Your task to perform on an android device: toggle pop-ups in chrome Image 0: 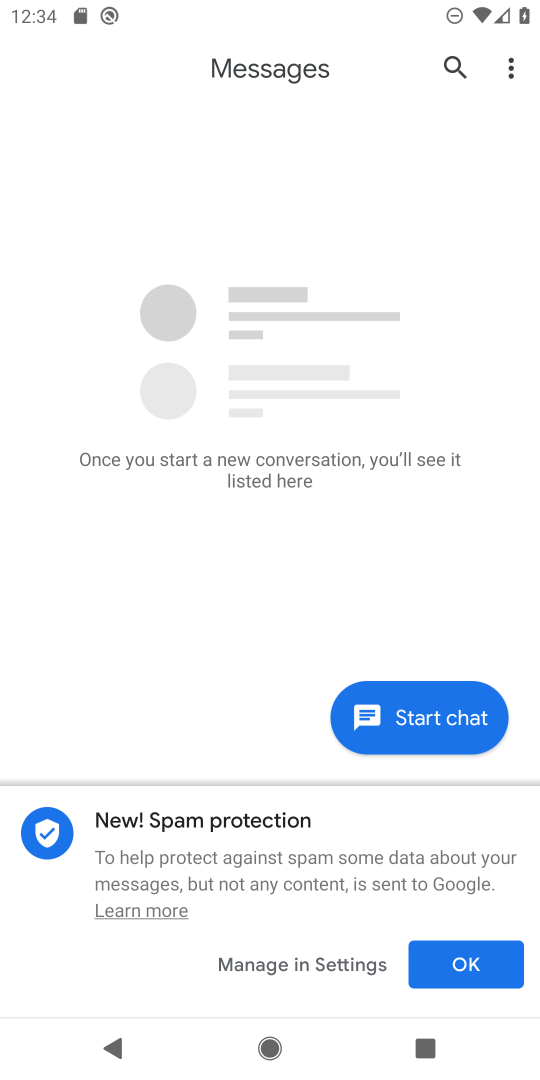
Step 0: press back button
Your task to perform on an android device: toggle pop-ups in chrome Image 1: 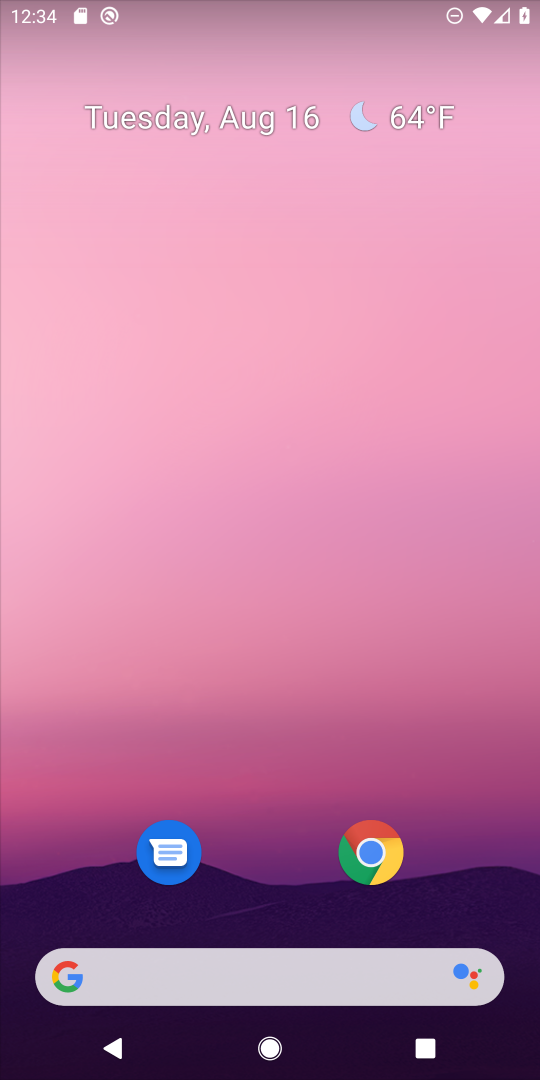
Step 1: click (374, 866)
Your task to perform on an android device: toggle pop-ups in chrome Image 2: 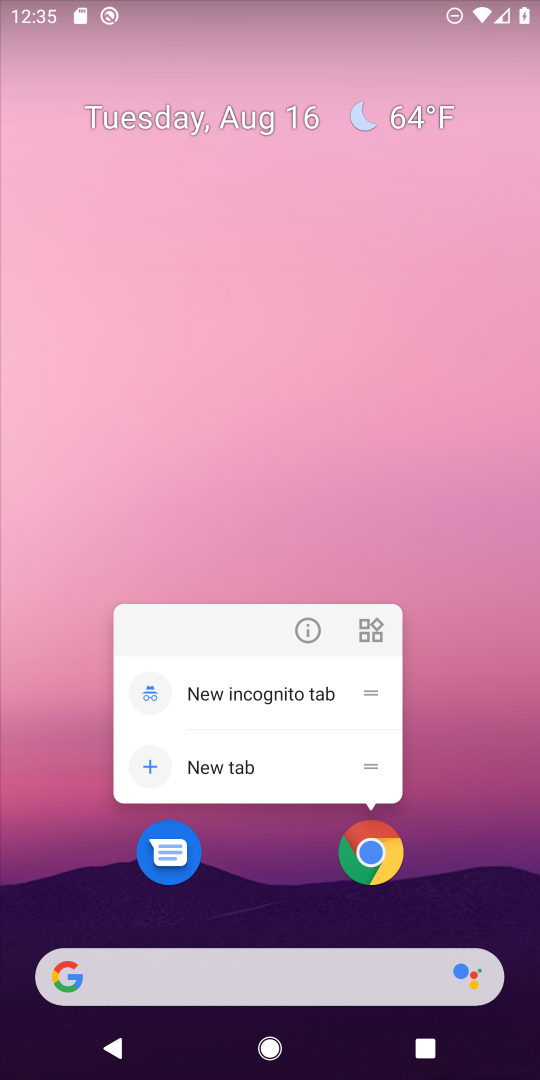
Step 2: click (365, 851)
Your task to perform on an android device: toggle pop-ups in chrome Image 3: 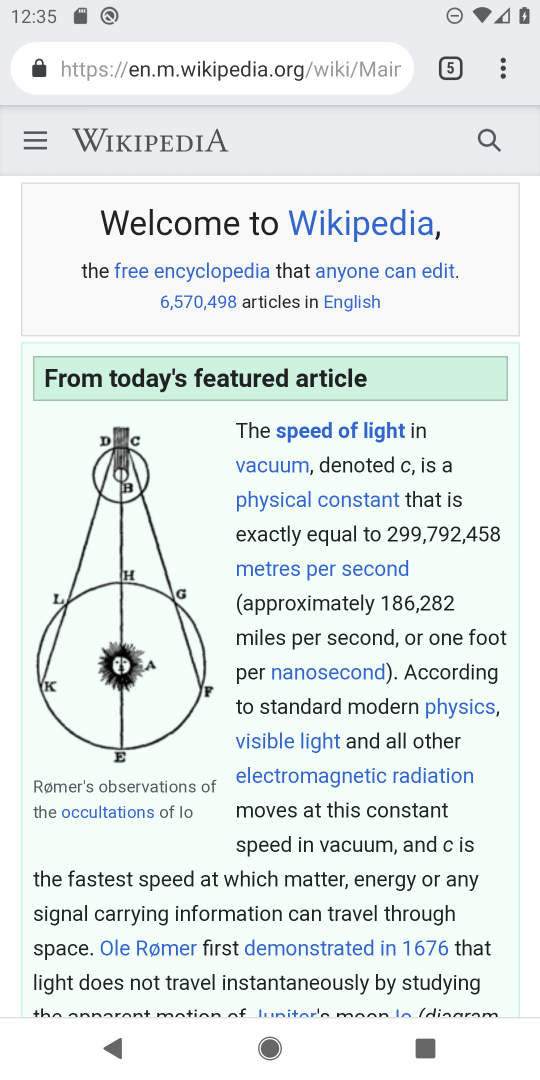
Step 3: drag from (495, 70) to (256, 914)
Your task to perform on an android device: toggle pop-ups in chrome Image 4: 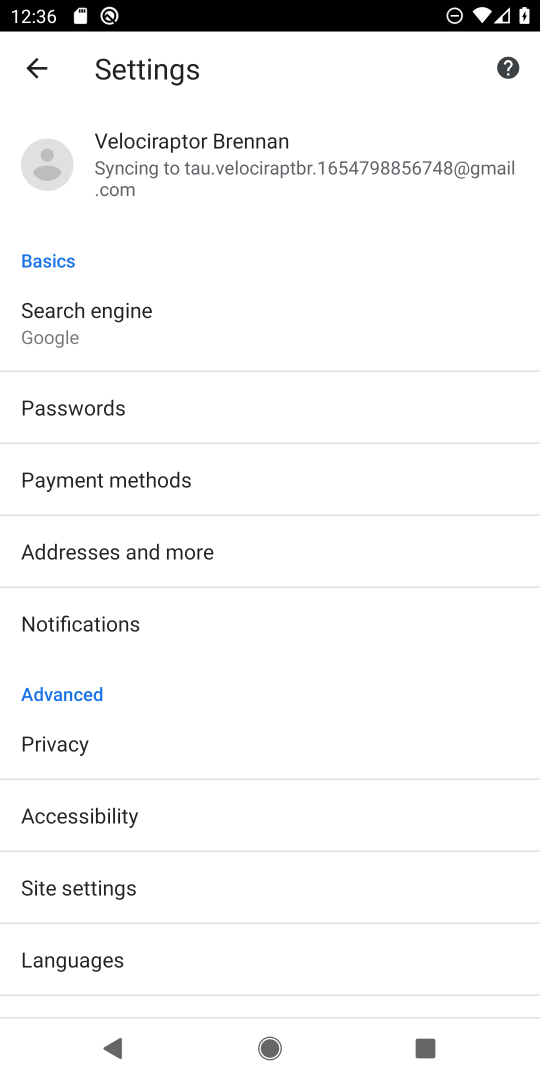
Step 4: click (225, 869)
Your task to perform on an android device: toggle pop-ups in chrome Image 5: 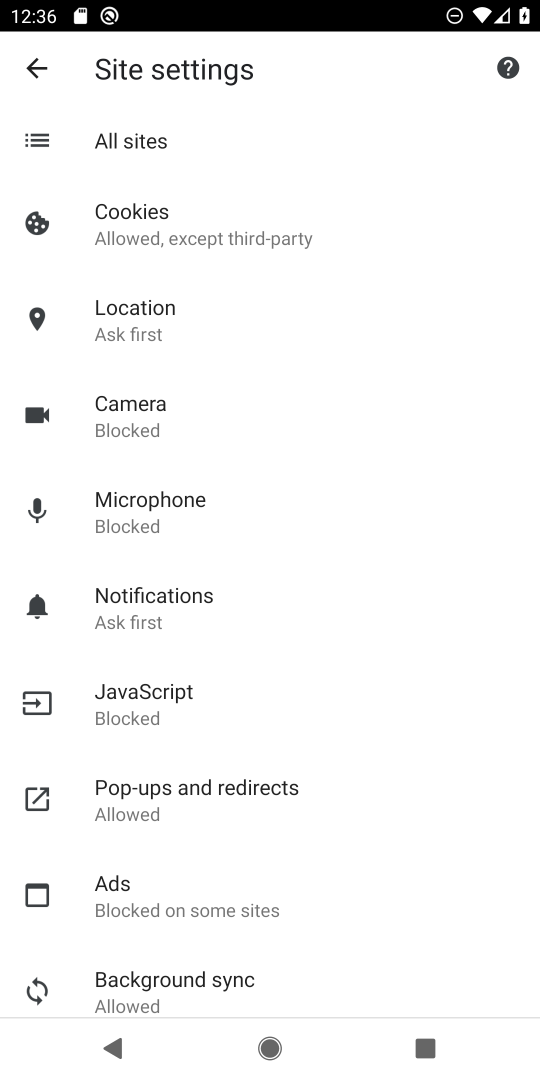
Step 5: click (209, 796)
Your task to perform on an android device: toggle pop-ups in chrome Image 6: 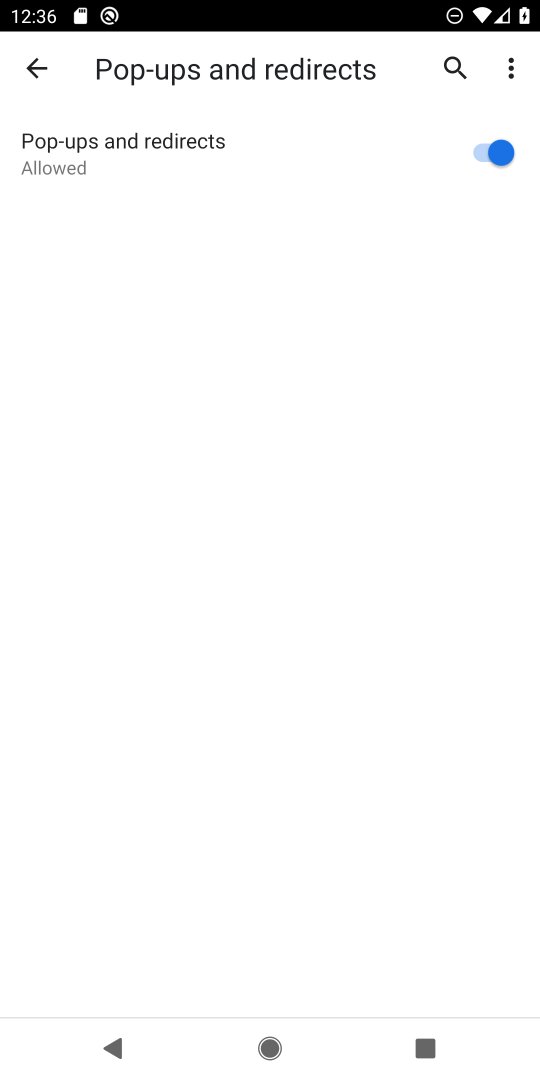
Step 6: click (493, 148)
Your task to perform on an android device: toggle pop-ups in chrome Image 7: 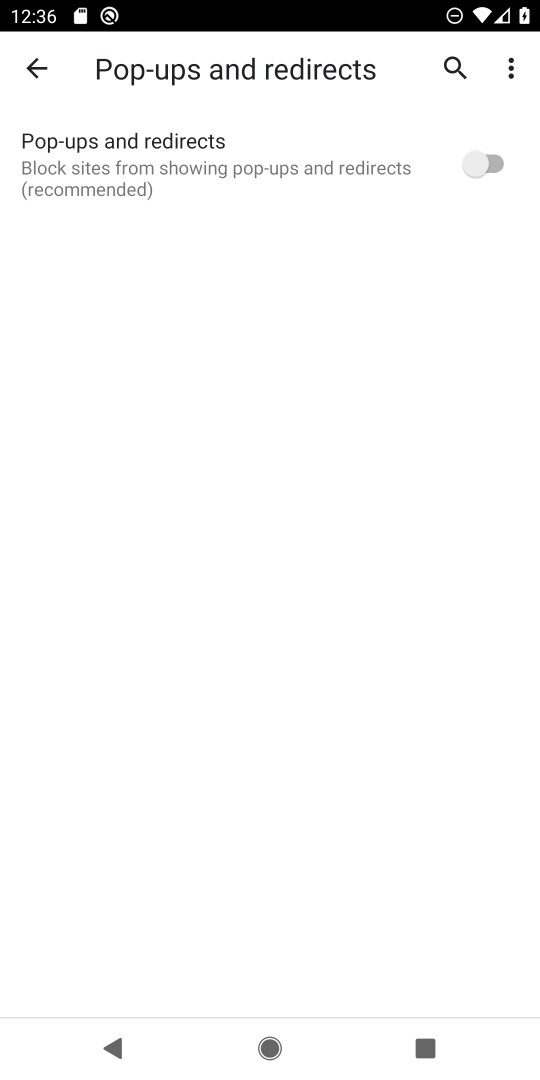
Step 7: task complete